Your task to perform on an android device: Open sound settings Image 0: 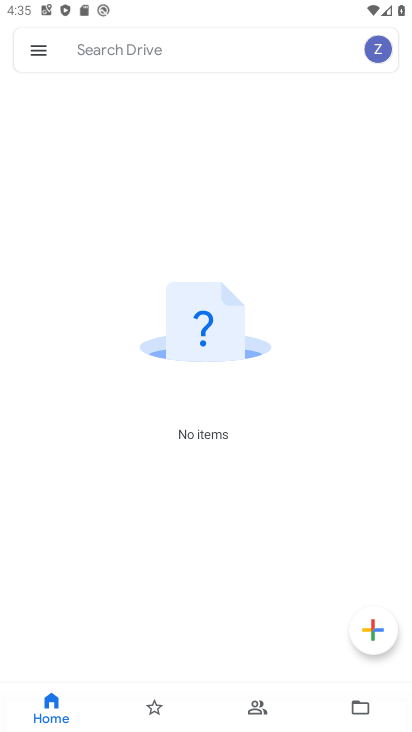
Step 0: drag from (140, 8) to (238, 574)
Your task to perform on an android device: Open sound settings Image 1: 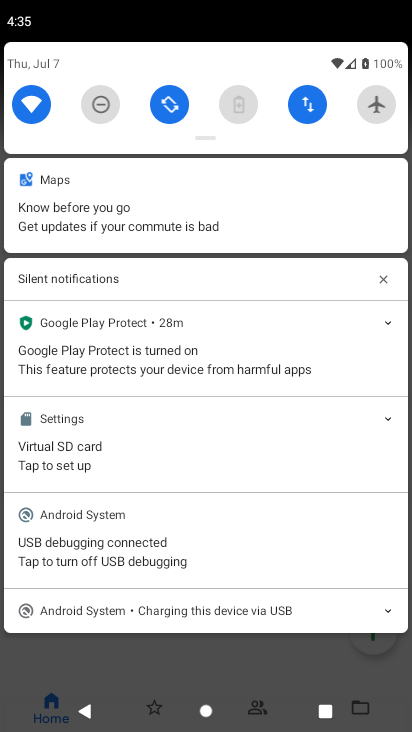
Step 1: drag from (181, 70) to (246, 663)
Your task to perform on an android device: Open sound settings Image 2: 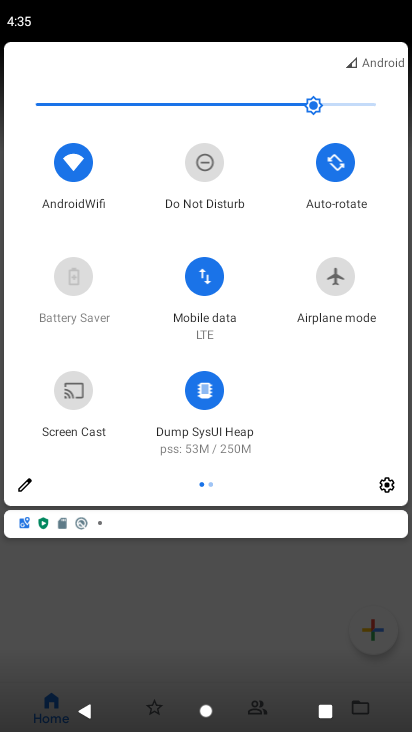
Step 2: click (386, 486)
Your task to perform on an android device: Open sound settings Image 3: 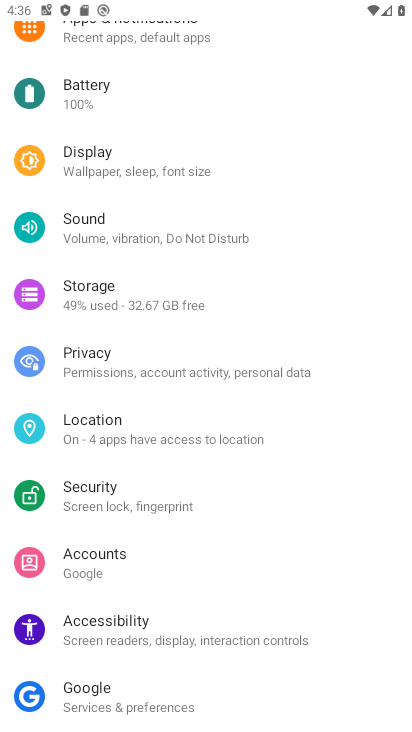
Step 3: click (151, 235)
Your task to perform on an android device: Open sound settings Image 4: 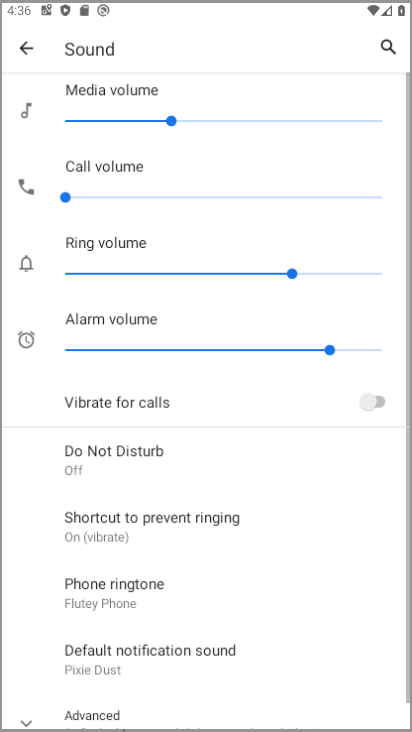
Step 4: task complete